Your task to perform on an android device: turn off notifications settings in the gmail app Image 0: 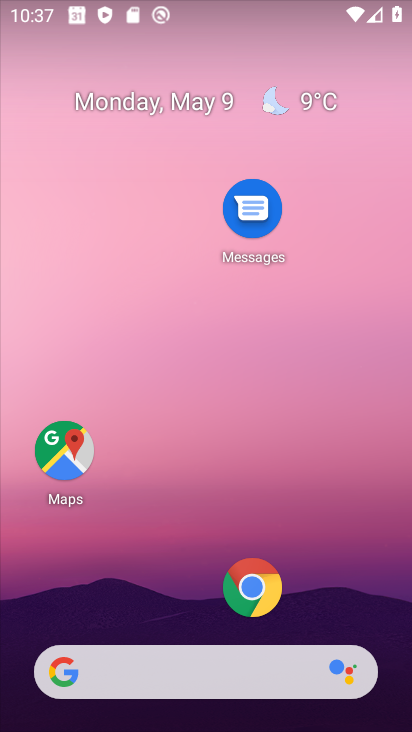
Step 0: click (317, 150)
Your task to perform on an android device: turn off notifications settings in the gmail app Image 1: 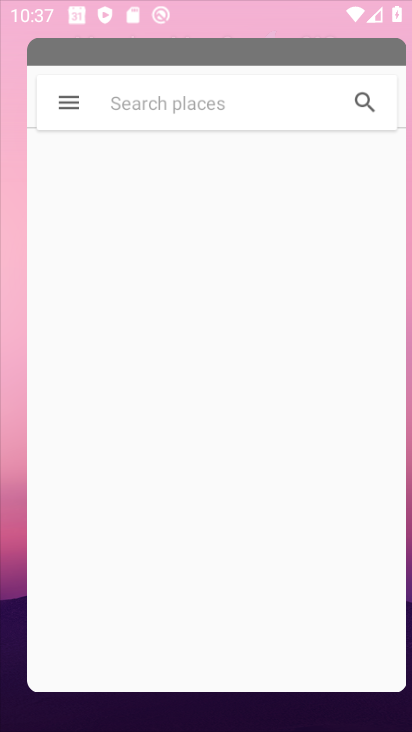
Step 1: drag from (190, 565) to (204, 188)
Your task to perform on an android device: turn off notifications settings in the gmail app Image 2: 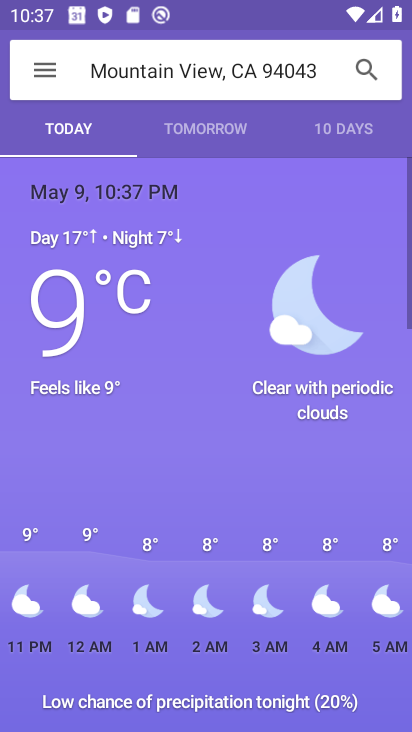
Step 2: press home button
Your task to perform on an android device: turn off notifications settings in the gmail app Image 3: 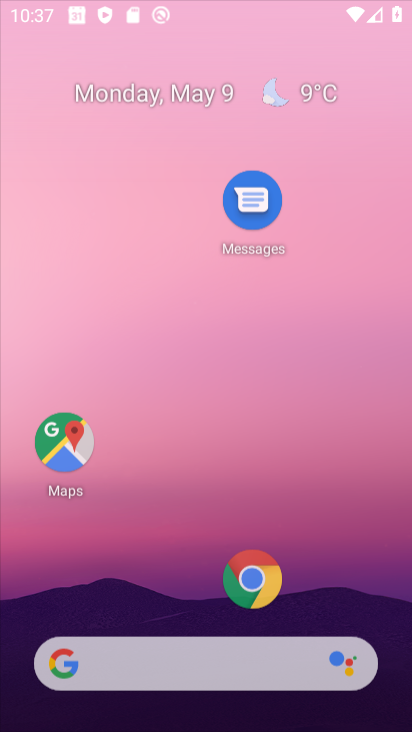
Step 3: drag from (197, 655) to (275, 218)
Your task to perform on an android device: turn off notifications settings in the gmail app Image 4: 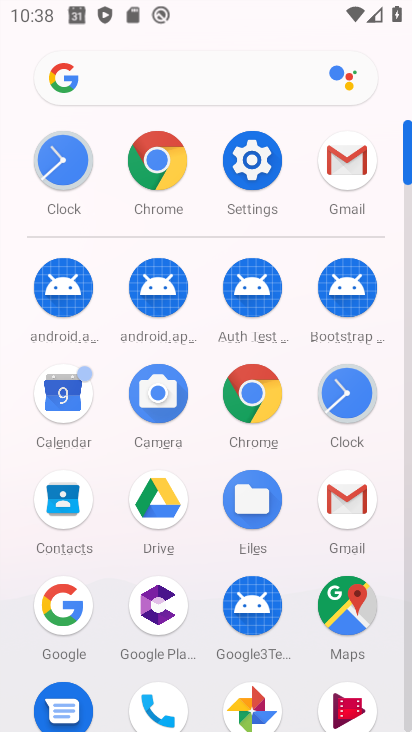
Step 4: click (360, 488)
Your task to perform on an android device: turn off notifications settings in the gmail app Image 5: 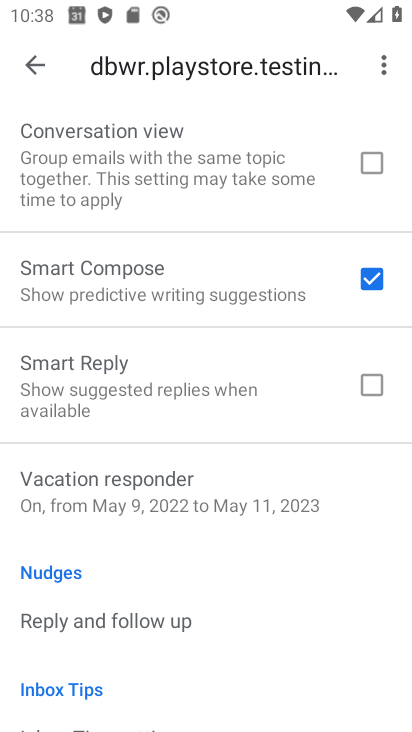
Step 5: drag from (202, 207) to (219, 630)
Your task to perform on an android device: turn off notifications settings in the gmail app Image 6: 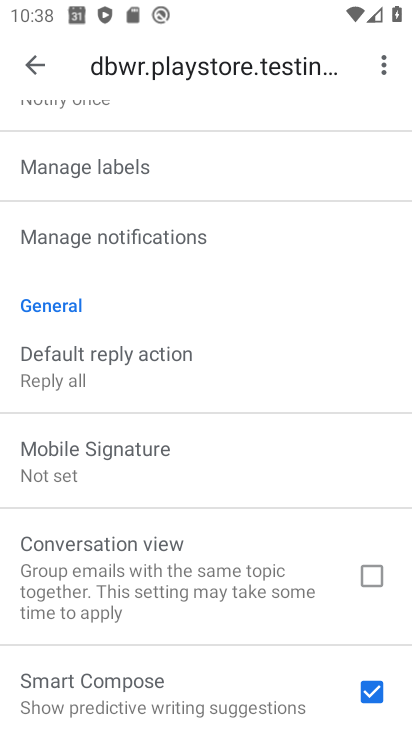
Step 6: click (123, 247)
Your task to perform on an android device: turn off notifications settings in the gmail app Image 7: 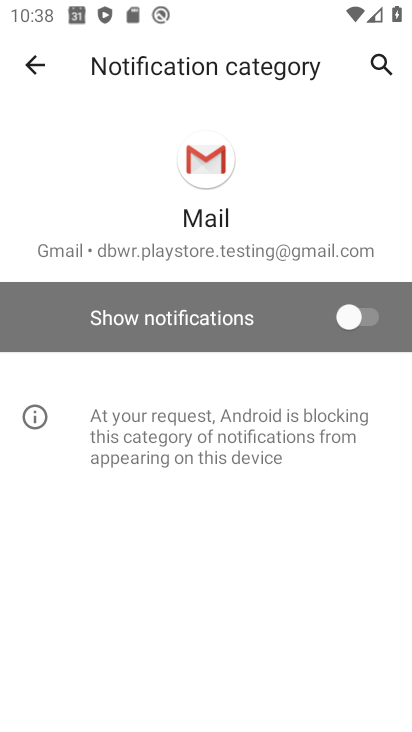
Step 7: task complete